Your task to perform on an android device: Open wifi settings Image 0: 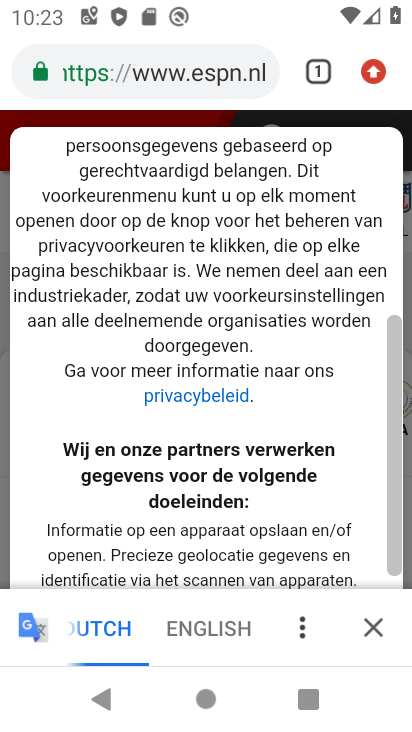
Step 0: click (386, 626)
Your task to perform on an android device: Open wifi settings Image 1: 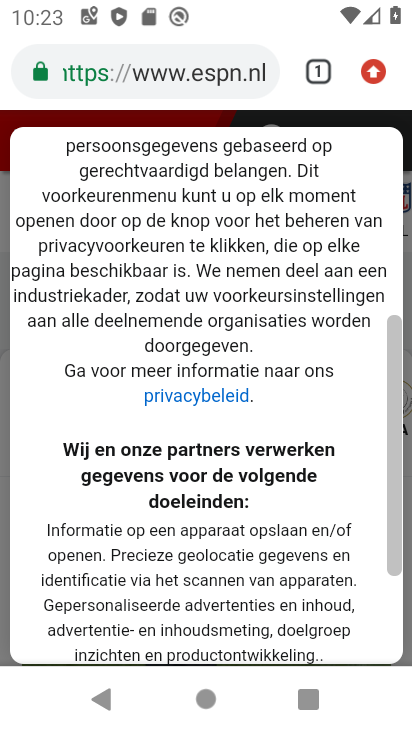
Step 1: click (371, 632)
Your task to perform on an android device: Open wifi settings Image 2: 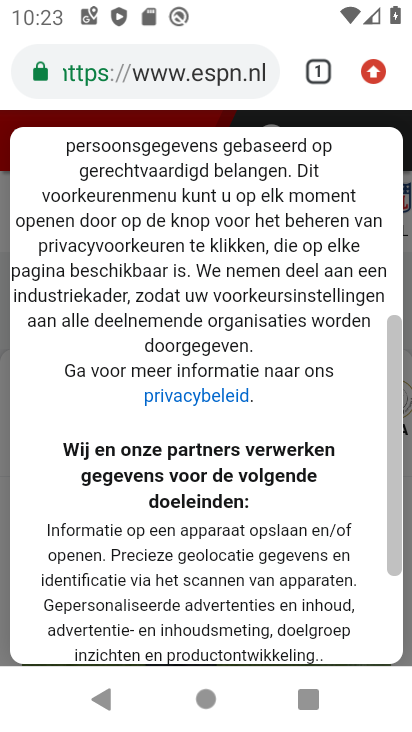
Step 2: drag from (114, 580) to (236, 201)
Your task to perform on an android device: Open wifi settings Image 3: 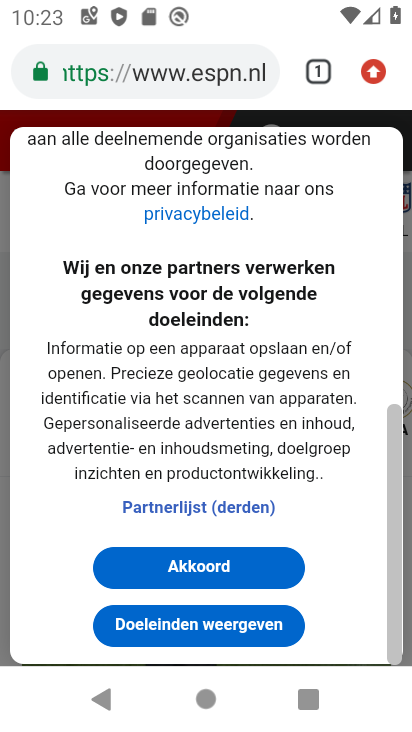
Step 3: press back button
Your task to perform on an android device: Open wifi settings Image 4: 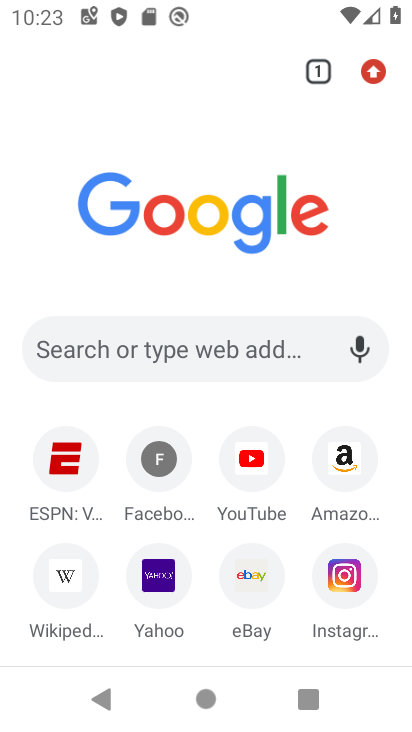
Step 4: press home button
Your task to perform on an android device: Open wifi settings Image 5: 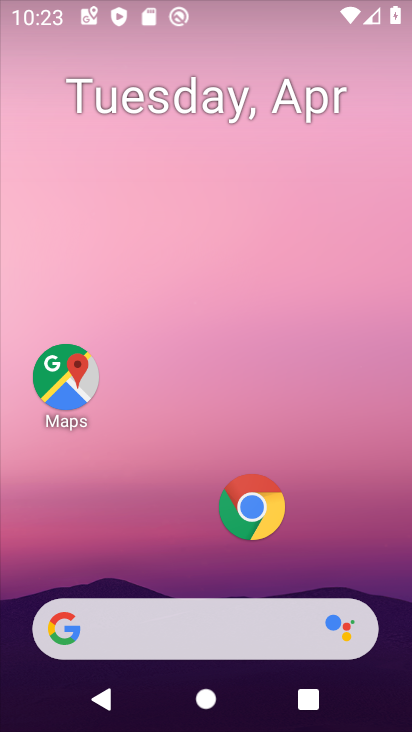
Step 5: drag from (119, 579) to (241, 270)
Your task to perform on an android device: Open wifi settings Image 6: 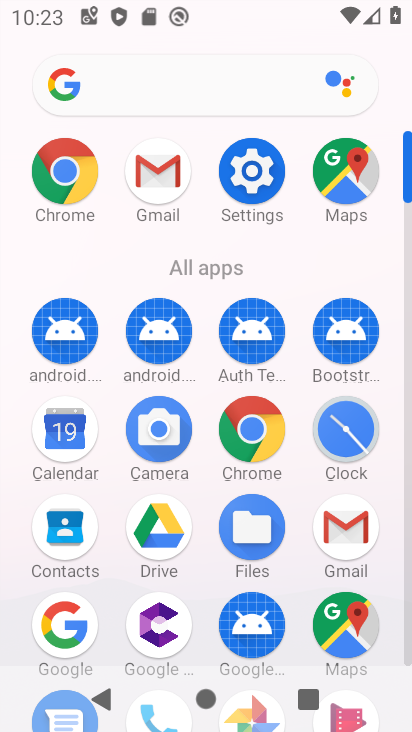
Step 6: click (240, 179)
Your task to perform on an android device: Open wifi settings Image 7: 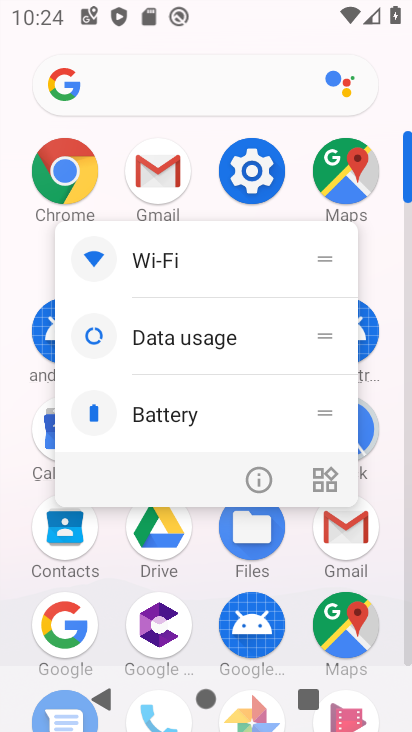
Step 7: click (174, 260)
Your task to perform on an android device: Open wifi settings Image 8: 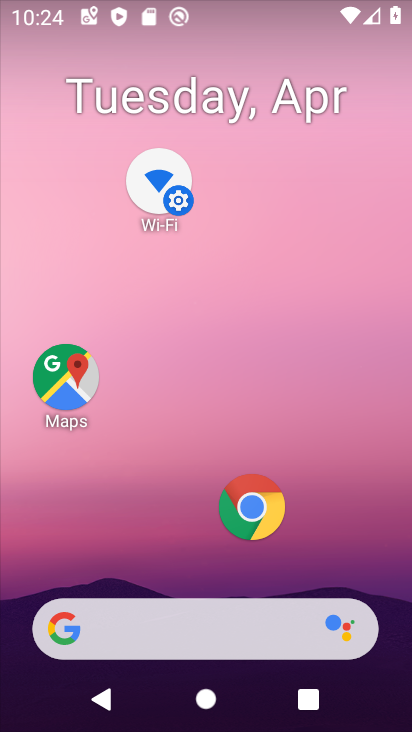
Step 8: click (155, 186)
Your task to perform on an android device: Open wifi settings Image 9: 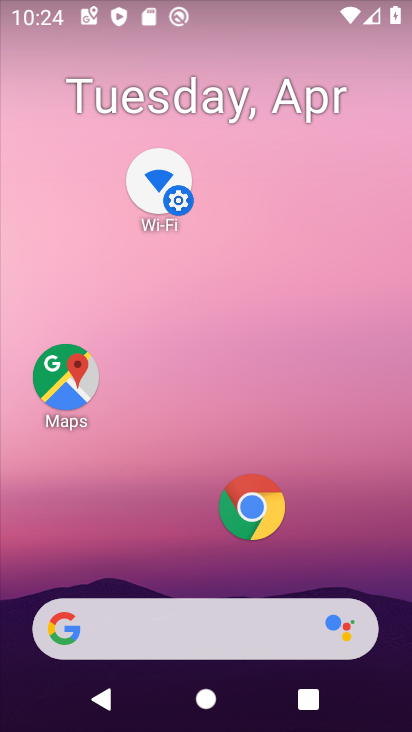
Step 9: click (155, 186)
Your task to perform on an android device: Open wifi settings Image 10: 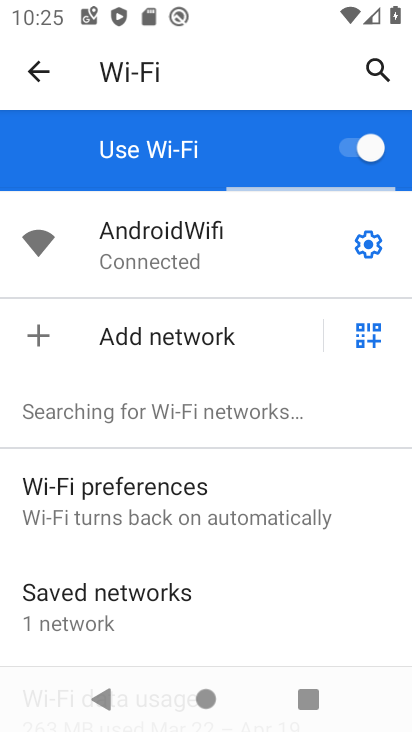
Step 10: click (367, 233)
Your task to perform on an android device: Open wifi settings Image 11: 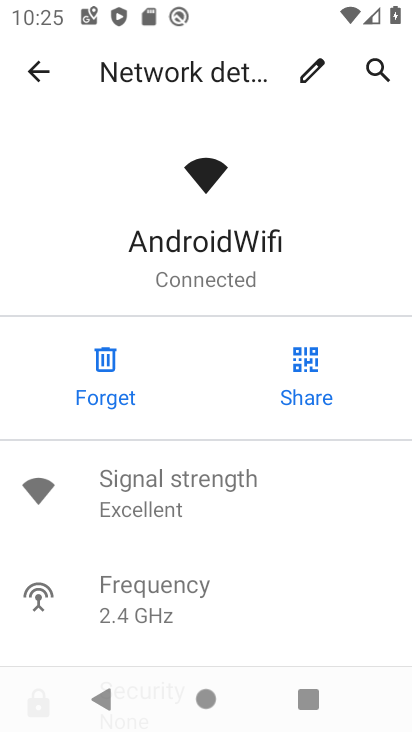
Step 11: task complete